Your task to perform on an android device: Open calendar and show me the first week of next month Image 0: 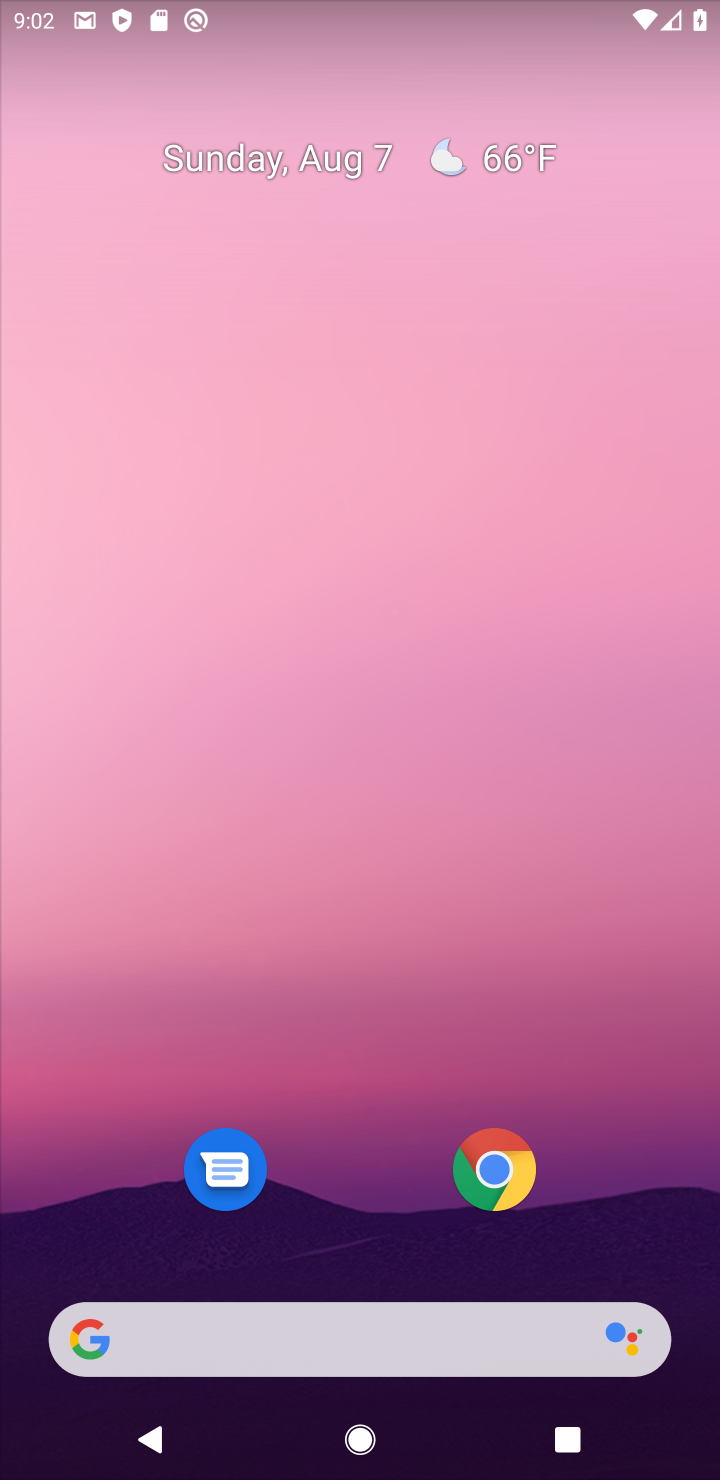
Step 0: drag from (383, 1242) to (392, 64)
Your task to perform on an android device: Open calendar and show me the first week of next month Image 1: 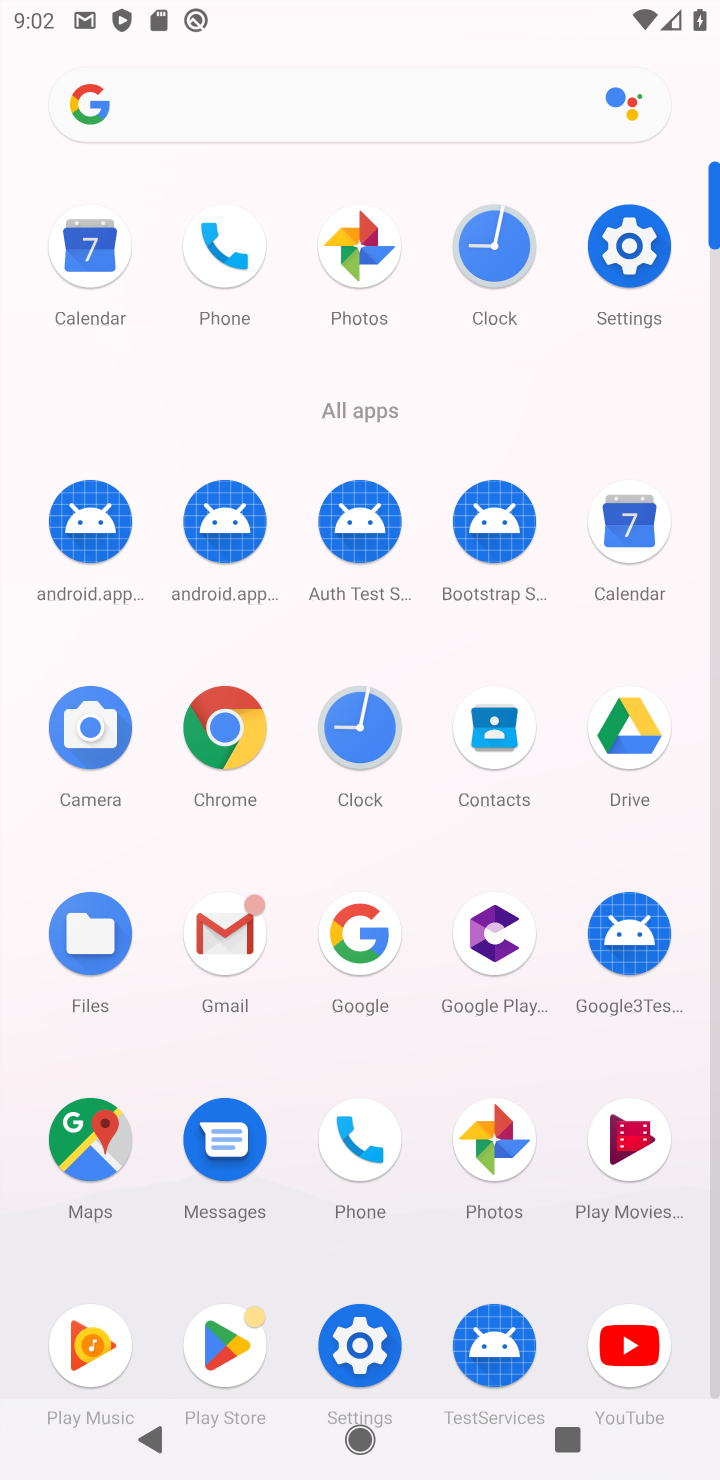
Step 1: click (632, 540)
Your task to perform on an android device: Open calendar and show me the first week of next month Image 2: 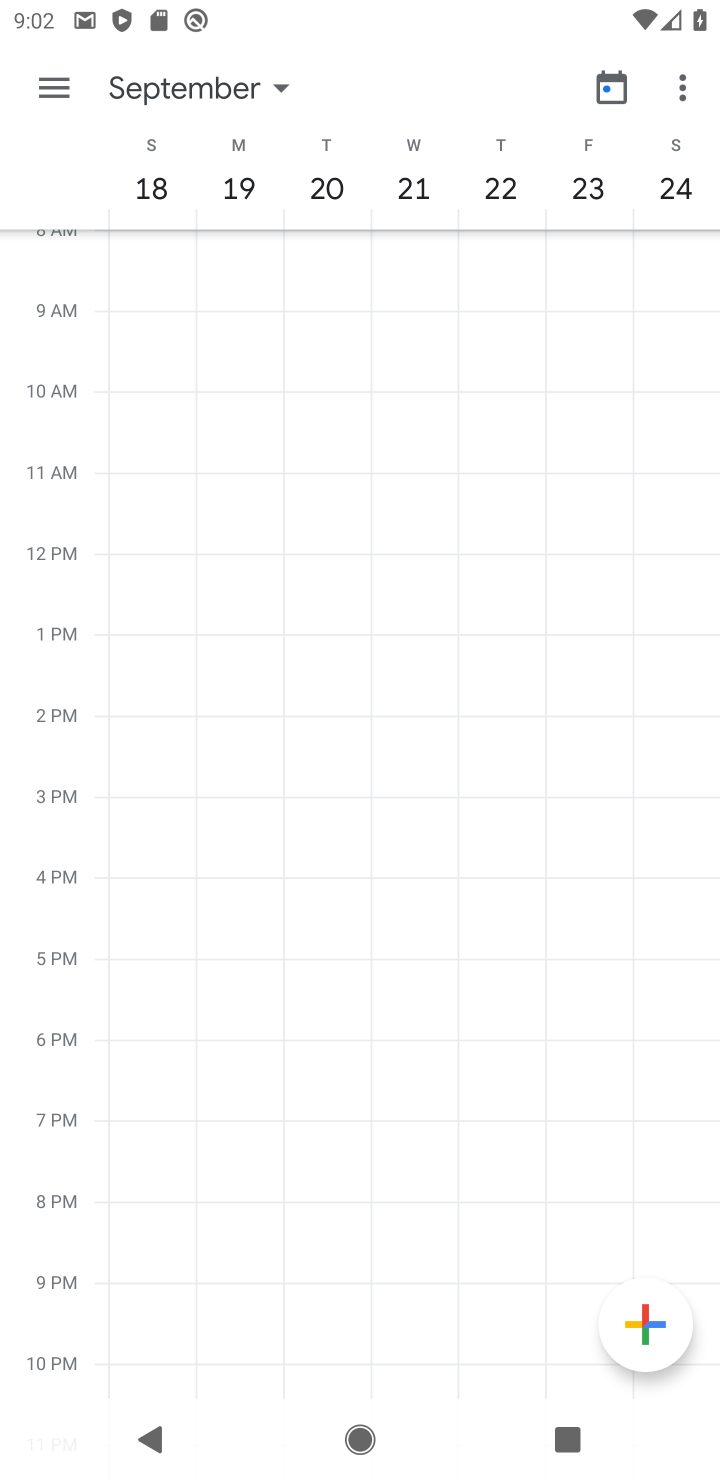
Step 2: click (605, 92)
Your task to perform on an android device: Open calendar and show me the first week of next month Image 3: 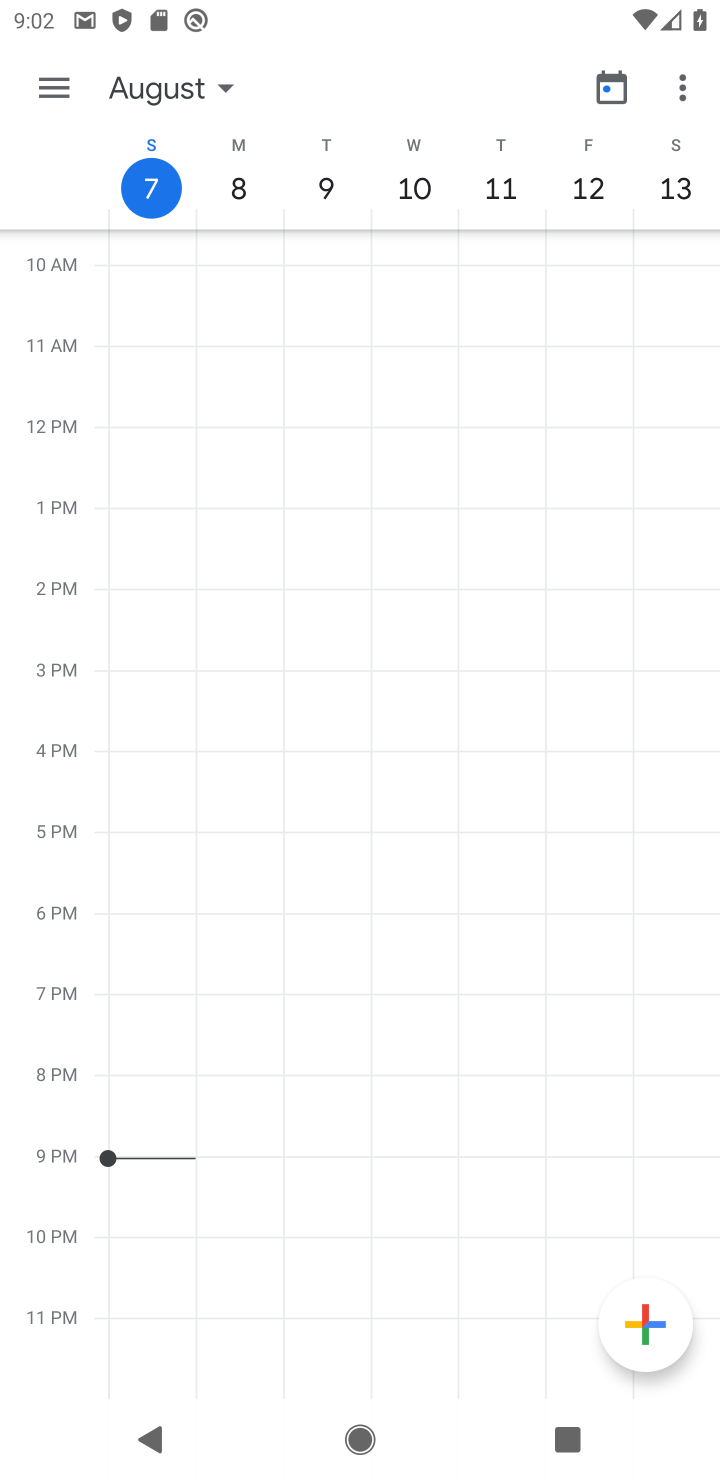
Step 3: task complete